Your task to perform on an android device: toggle notifications settings in the gmail app Image 0: 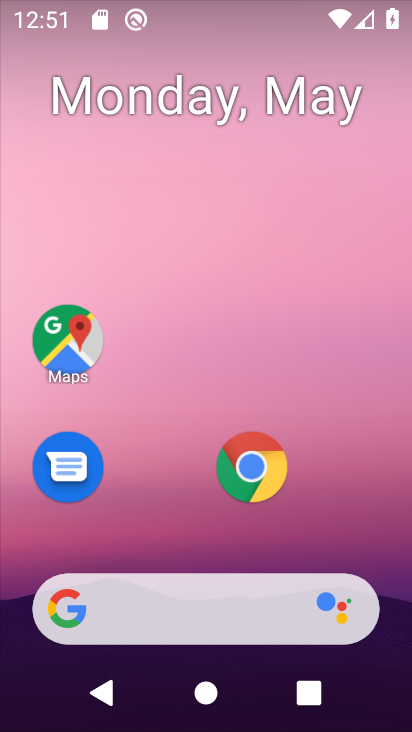
Step 0: drag from (191, 526) to (301, 4)
Your task to perform on an android device: toggle notifications settings in the gmail app Image 1: 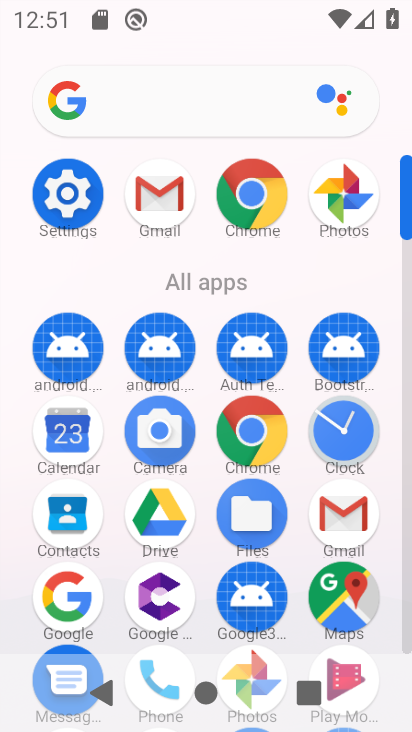
Step 1: click (330, 494)
Your task to perform on an android device: toggle notifications settings in the gmail app Image 2: 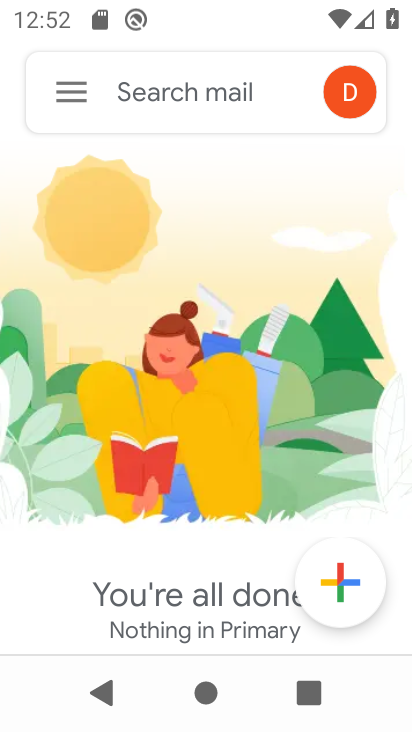
Step 2: drag from (178, 508) to (234, 203)
Your task to perform on an android device: toggle notifications settings in the gmail app Image 3: 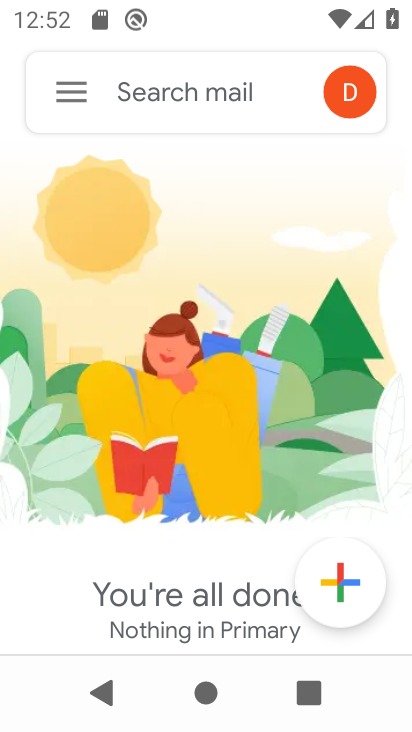
Step 3: click (45, 97)
Your task to perform on an android device: toggle notifications settings in the gmail app Image 4: 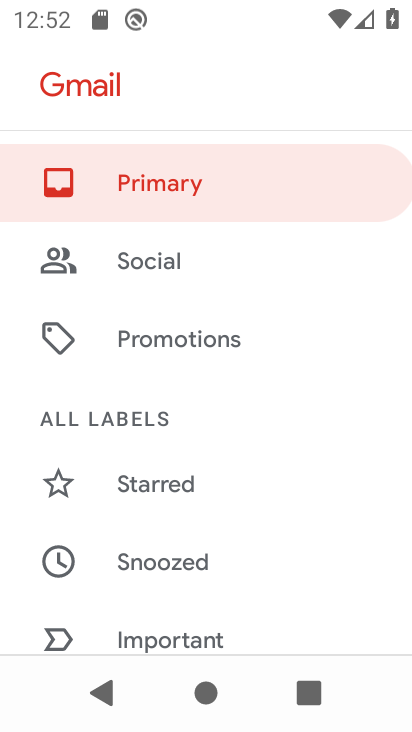
Step 4: drag from (269, 544) to (315, 132)
Your task to perform on an android device: toggle notifications settings in the gmail app Image 5: 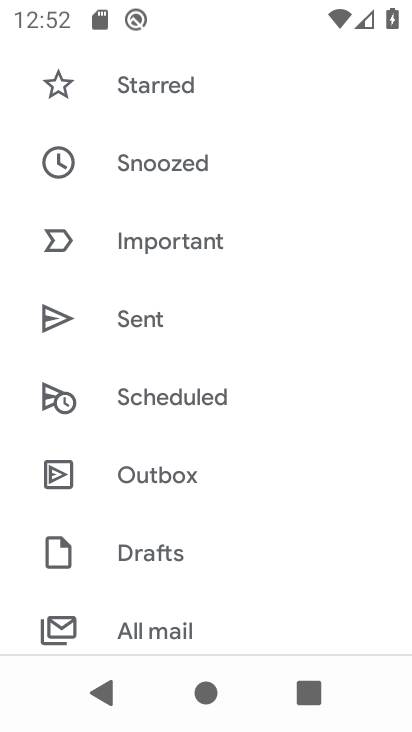
Step 5: drag from (208, 515) to (330, 35)
Your task to perform on an android device: toggle notifications settings in the gmail app Image 6: 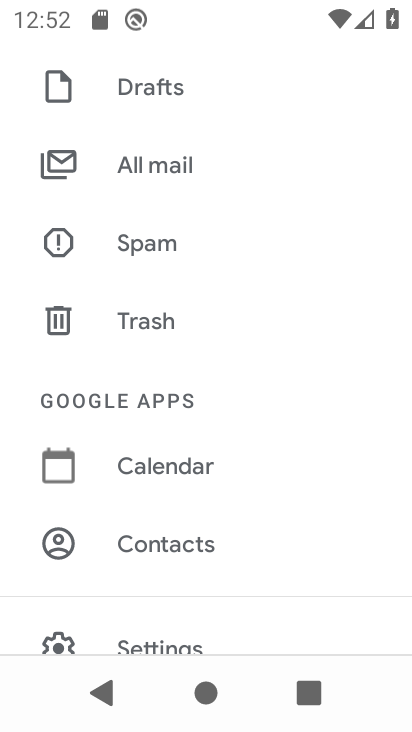
Step 6: drag from (203, 516) to (295, 136)
Your task to perform on an android device: toggle notifications settings in the gmail app Image 7: 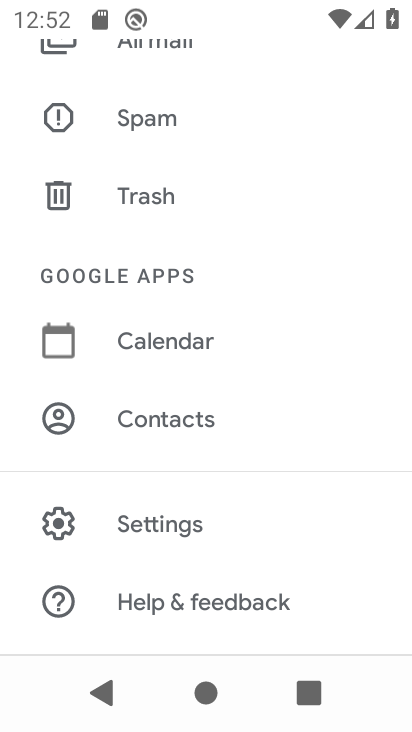
Step 7: click (173, 528)
Your task to perform on an android device: toggle notifications settings in the gmail app Image 8: 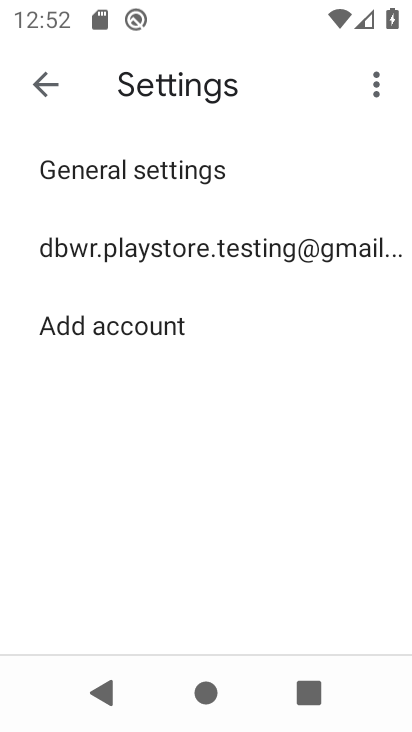
Step 8: drag from (238, 478) to (274, 195)
Your task to perform on an android device: toggle notifications settings in the gmail app Image 9: 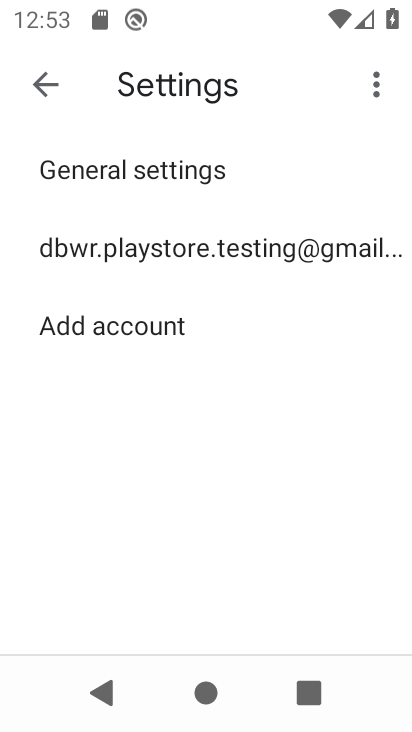
Step 9: drag from (274, 459) to (287, 370)
Your task to perform on an android device: toggle notifications settings in the gmail app Image 10: 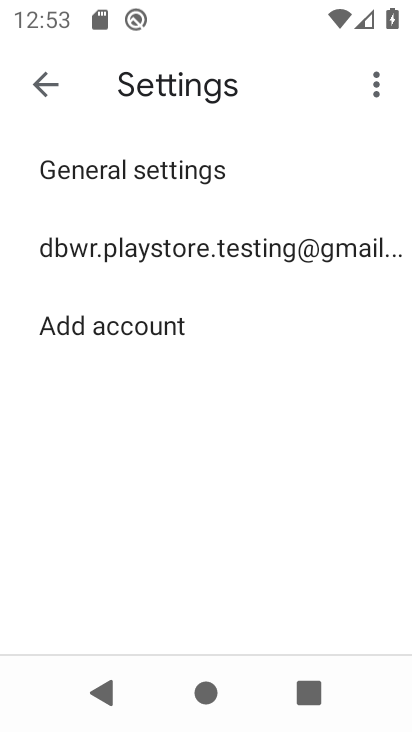
Step 10: click (143, 230)
Your task to perform on an android device: toggle notifications settings in the gmail app Image 11: 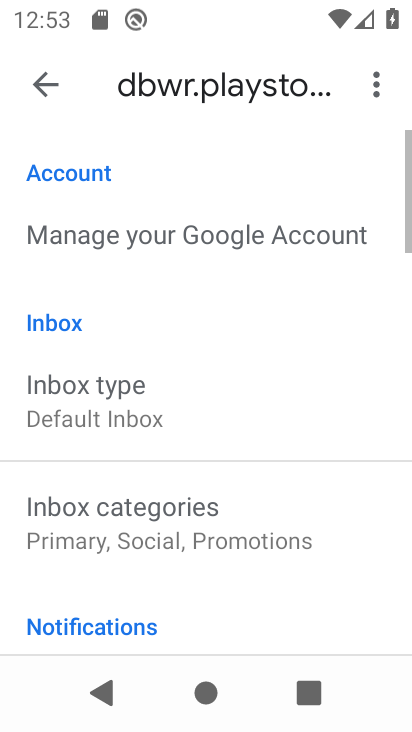
Step 11: drag from (214, 560) to (282, 95)
Your task to perform on an android device: toggle notifications settings in the gmail app Image 12: 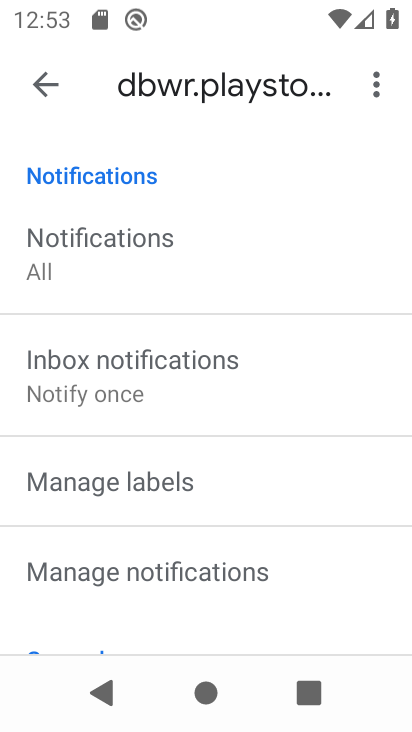
Step 12: click (159, 553)
Your task to perform on an android device: toggle notifications settings in the gmail app Image 13: 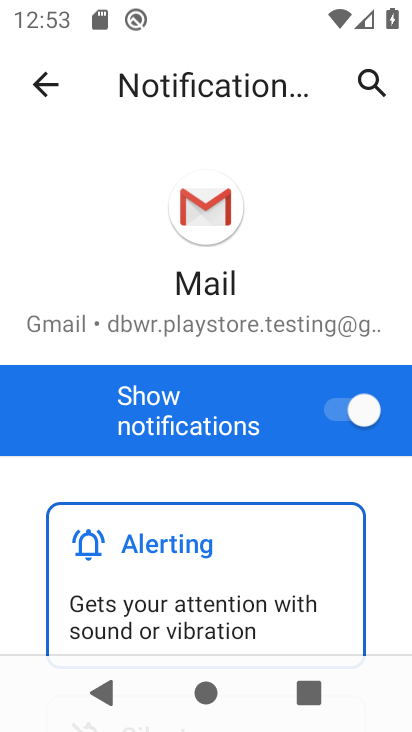
Step 13: drag from (253, 590) to (306, 135)
Your task to perform on an android device: toggle notifications settings in the gmail app Image 14: 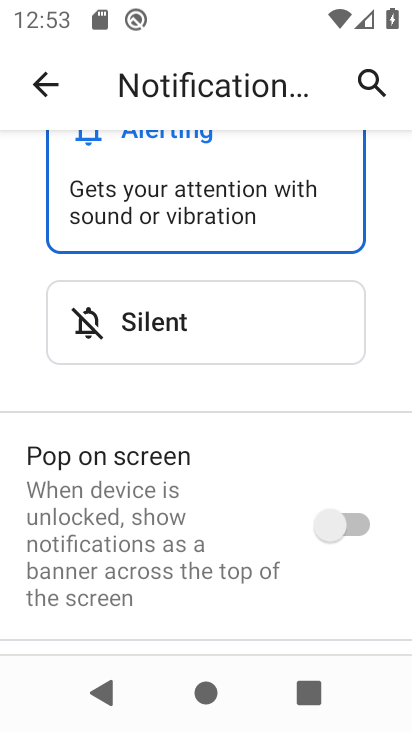
Step 14: drag from (227, 528) to (302, 104)
Your task to perform on an android device: toggle notifications settings in the gmail app Image 15: 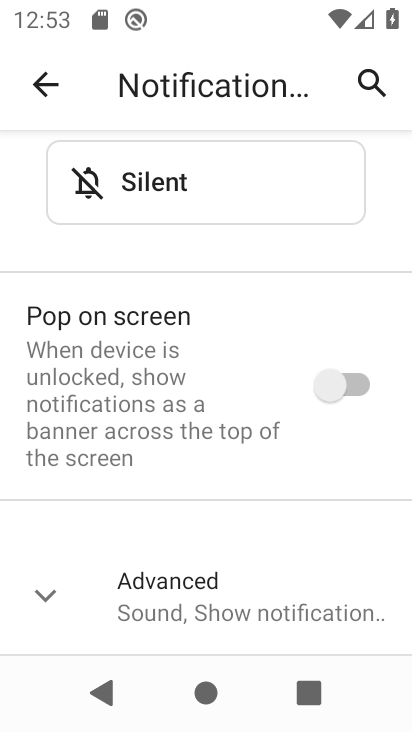
Step 15: drag from (201, 549) to (214, 189)
Your task to perform on an android device: toggle notifications settings in the gmail app Image 16: 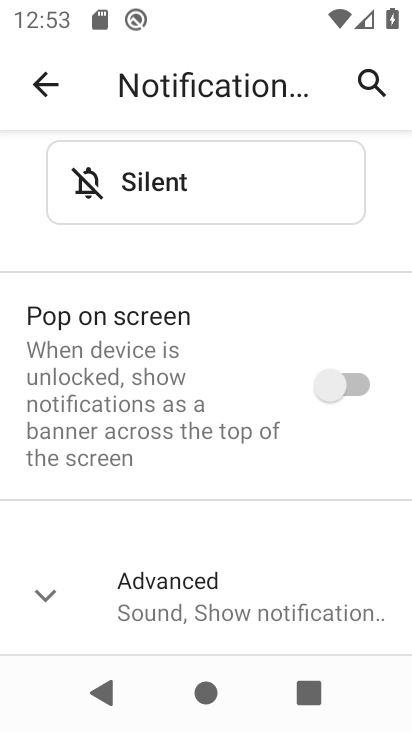
Step 16: drag from (299, 259) to (339, 714)
Your task to perform on an android device: toggle notifications settings in the gmail app Image 17: 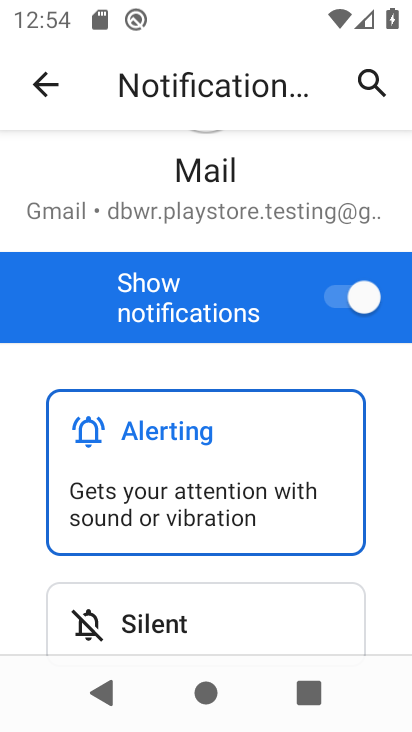
Step 17: drag from (219, 604) to (222, 277)
Your task to perform on an android device: toggle notifications settings in the gmail app Image 18: 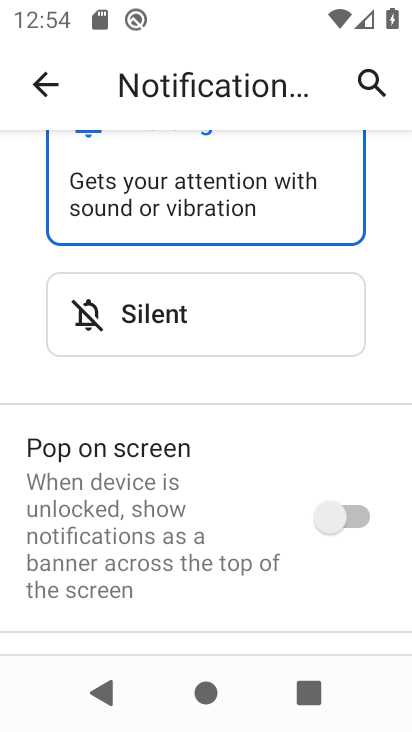
Step 18: drag from (225, 324) to (270, 726)
Your task to perform on an android device: toggle notifications settings in the gmail app Image 19: 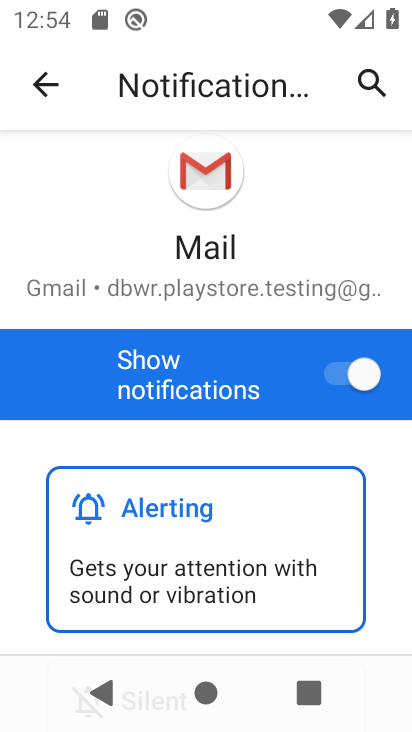
Step 19: drag from (227, 638) to (319, 160)
Your task to perform on an android device: toggle notifications settings in the gmail app Image 20: 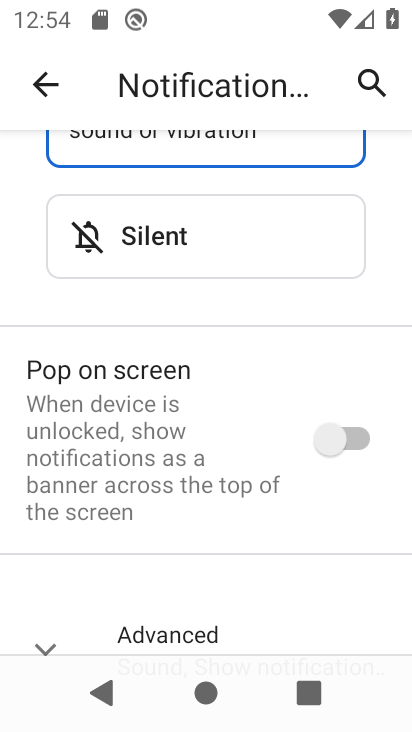
Step 20: drag from (333, 562) to (397, 148)
Your task to perform on an android device: toggle notifications settings in the gmail app Image 21: 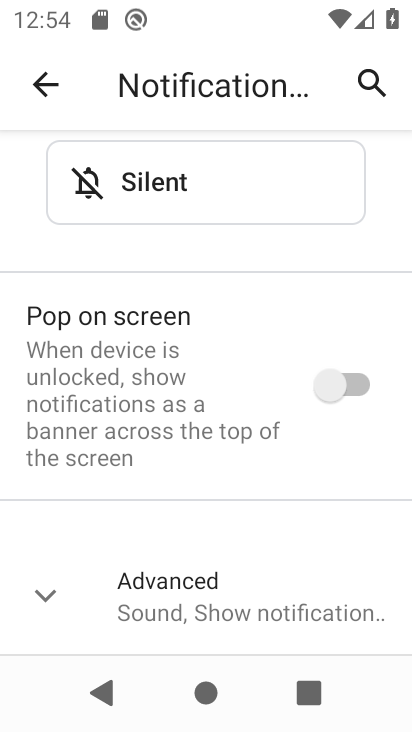
Step 21: drag from (257, 584) to (343, 136)
Your task to perform on an android device: toggle notifications settings in the gmail app Image 22: 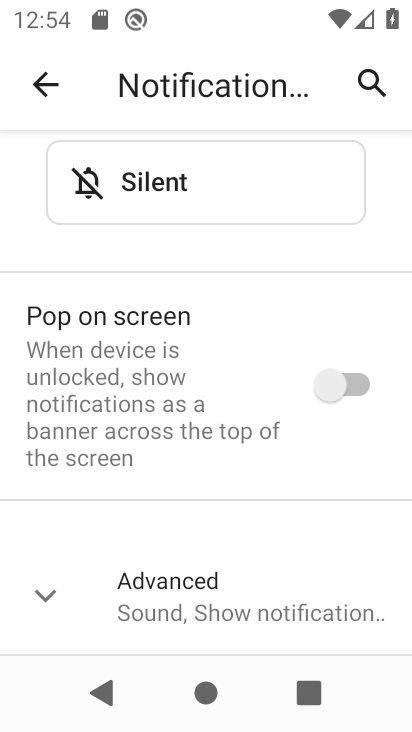
Step 22: drag from (248, 573) to (257, 136)
Your task to perform on an android device: toggle notifications settings in the gmail app Image 23: 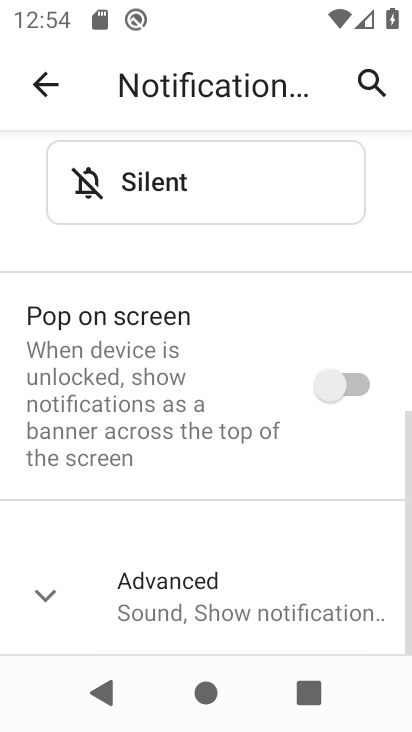
Step 23: drag from (236, 204) to (234, 728)
Your task to perform on an android device: toggle notifications settings in the gmail app Image 24: 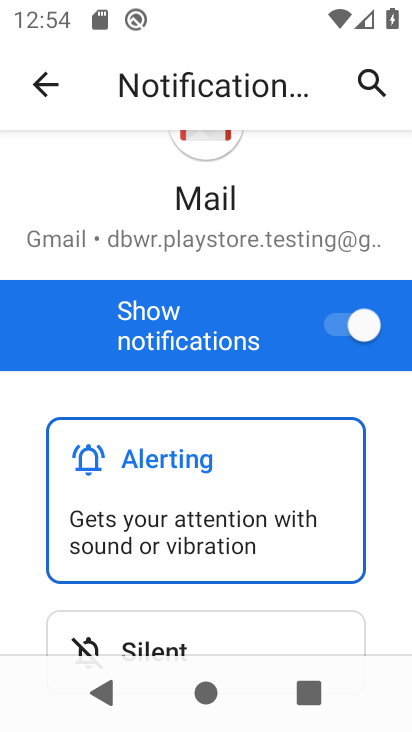
Step 24: drag from (240, 604) to (286, 223)
Your task to perform on an android device: toggle notifications settings in the gmail app Image 25: 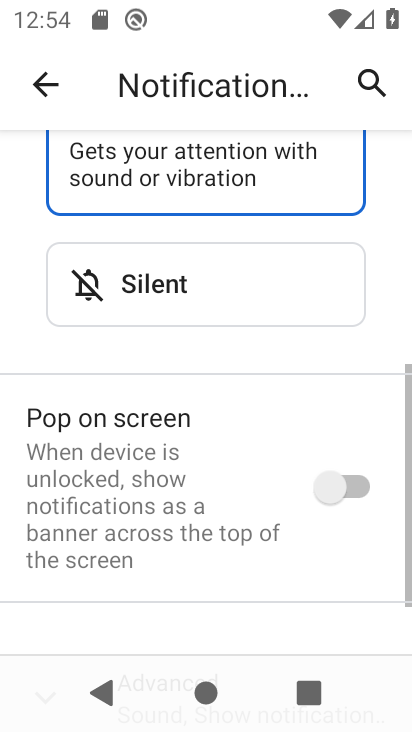
Step 25: drag from (292, 190) to (294, 730)
Your task to perform on an android device: toggle notifications settings in the gmail app Image 26: 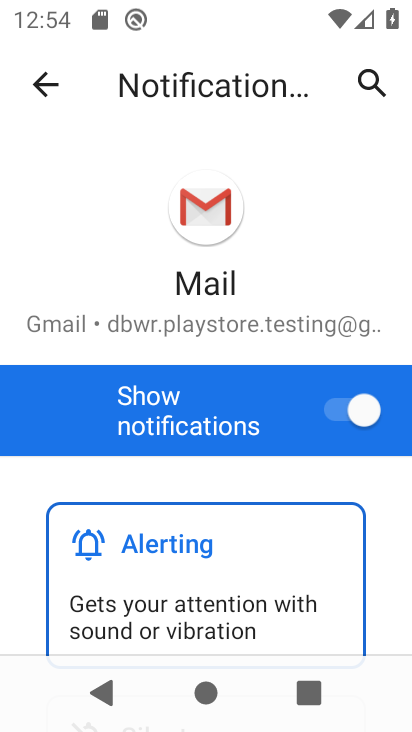
Step 26: click (359, 425)
Your task to perform on an android device: toggle notifications settings in the gmail app Image 27: 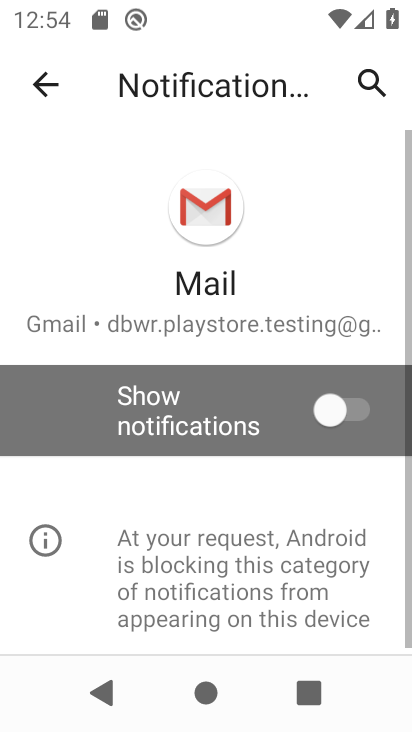
Step 27: task complete